Your task to perform on an android device: turn on priority inbox in the gmail app Image 0: 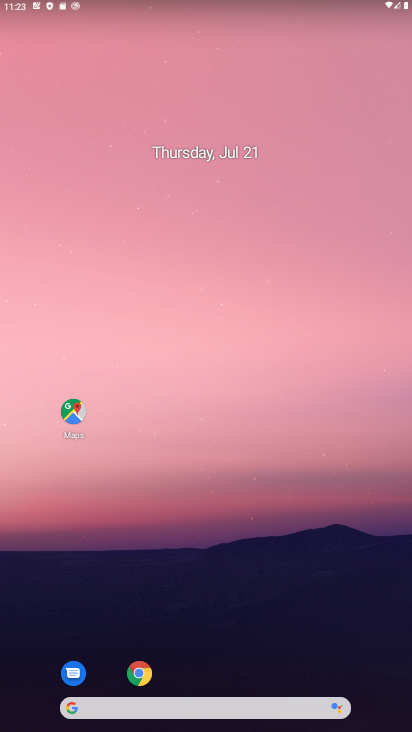
Step 0: drag from (198, 667) to (225, 245)
Your task to perform on an android device: turn on priority inbox in the gmail app Image 1: 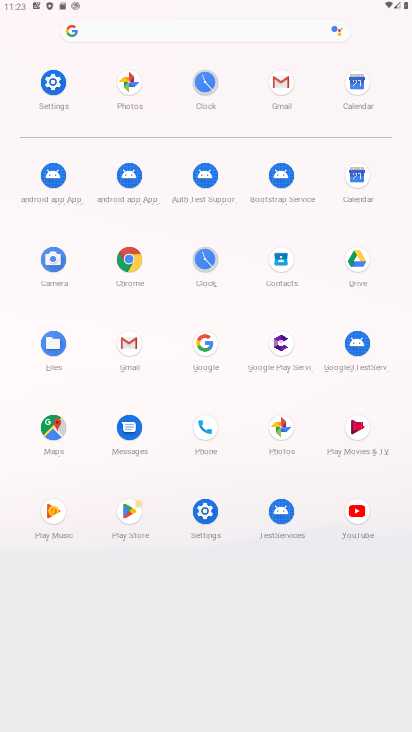
Step 1: click (265, 104)
Your task to perform on an android device: turn on priority inbox in the gmail app Image 2: 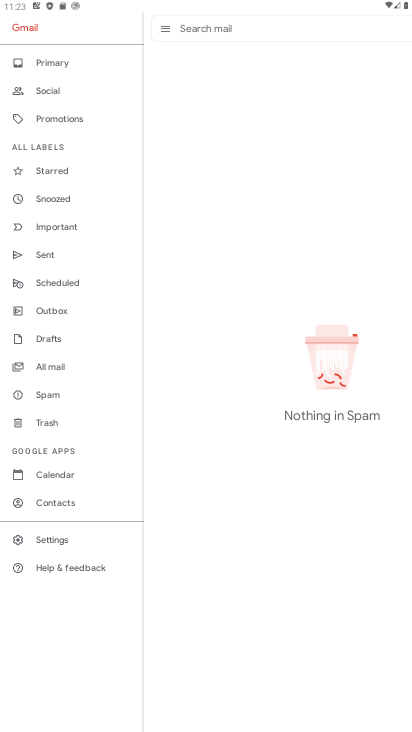
Step 2: click (85, 536)
Your task to perform on an android device: turn on priority inbox in the gmail app Image 3: 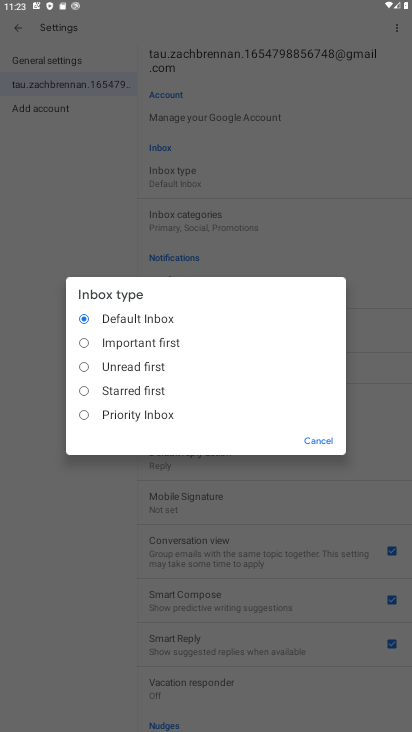
Step 3: click (142, 420)
Your task to perform on an android device: turn on priority inbox in the gmail app Image 4: 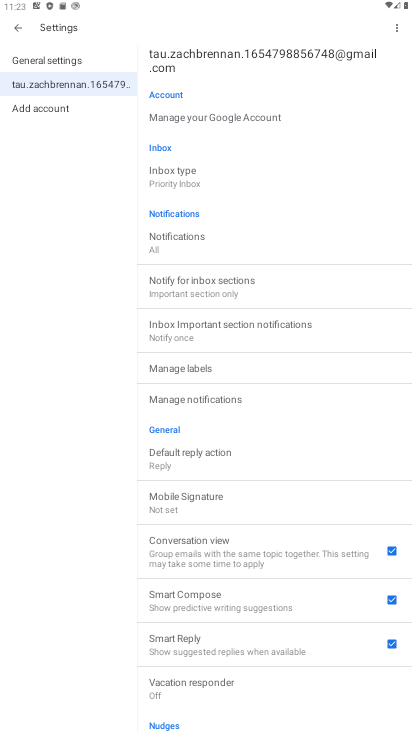
Step 4: task complete